Your task to perform on an android device: turn off data saver in the chrome app Image 0: 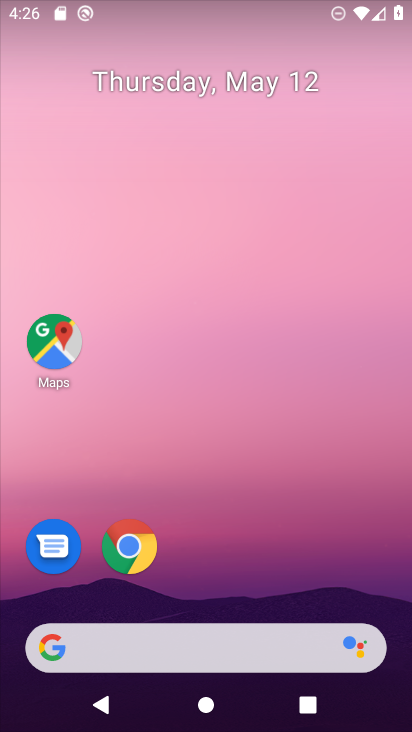
Step 0: drag from (265, 499) to (285, 165)
Your task to perform on an android device: turn off data saver in the chrome app Image 1: 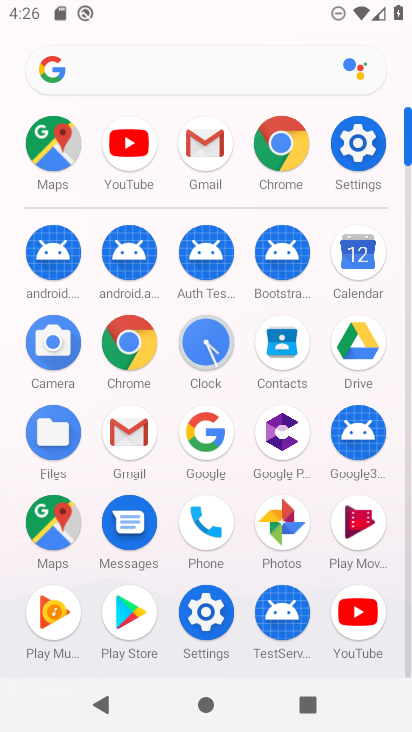
Step 1: click (273, 142)
Your task to perform on an android device: turn off data saver in the chrome app Image 2: 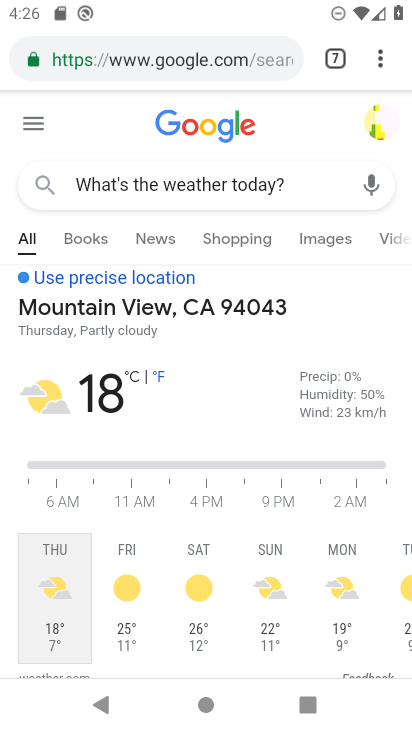
Step 2: click (366, 57)
Your task to perform on an android device: turn off data saver in the chrome app Image 3: 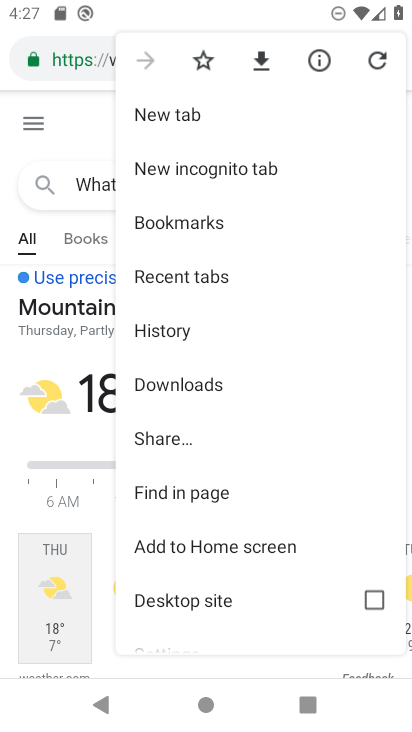
Step 3: drag from (186, 597) to (242, 279)
Your task to perform on an android device: turn off data saver in the chrome app Image 4: 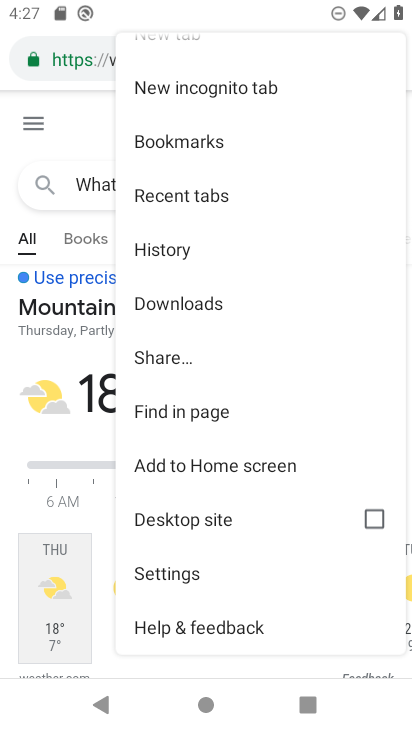
Step 4: click (197, 571)
Your task to perform on an android device: turn off data saver in the chrome app Image 5: 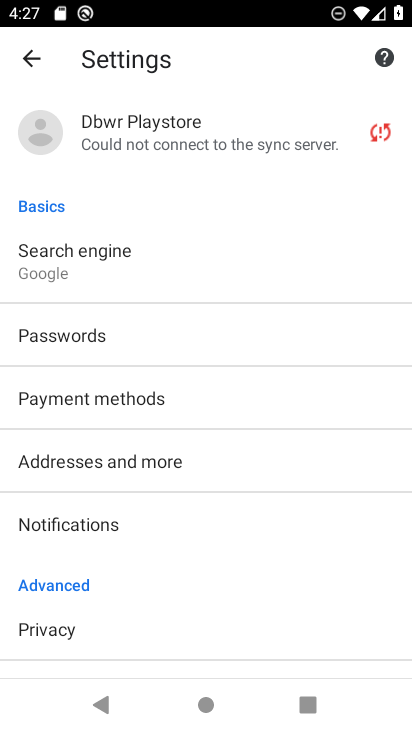
Step 5: drag from (164, 617) to (208, 249)
Your task to perform on an android device: turn off data saver in the chrome app Image 6: 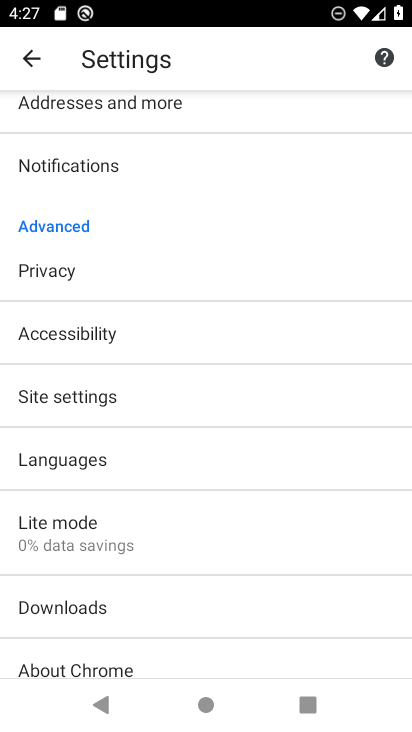
Step 6: click (123, 531)
Your task to perform on an android device: turn off data saver in the chrome app Image 7: 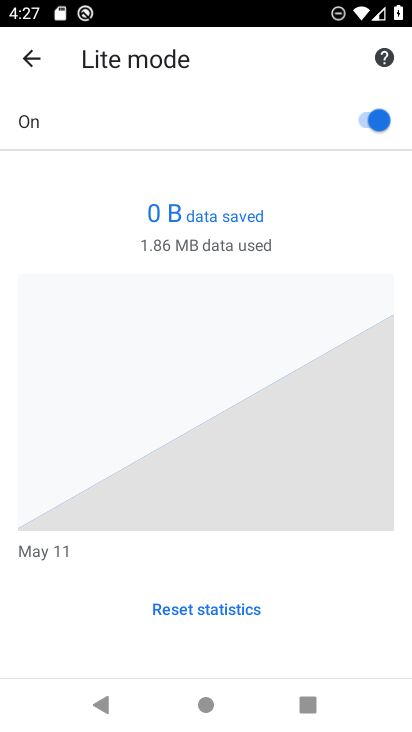
Step 7: click (367, 112)
Your task to perform on an android device: turn off data saver in the chrome app Image 8: 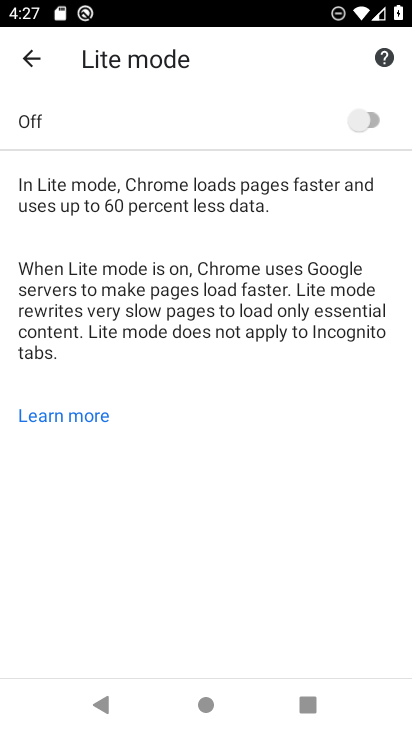
Step 8: task complete